Your task to perform on an android device: Search for Italian restaurants on Maps Image 0: 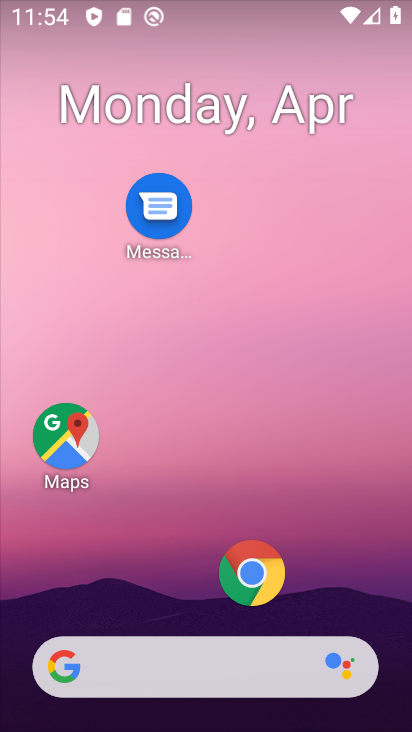
Step 0: click (82, 432)
Your task to perform on an android device: Search for Italian restaurants on Maps Image 1: 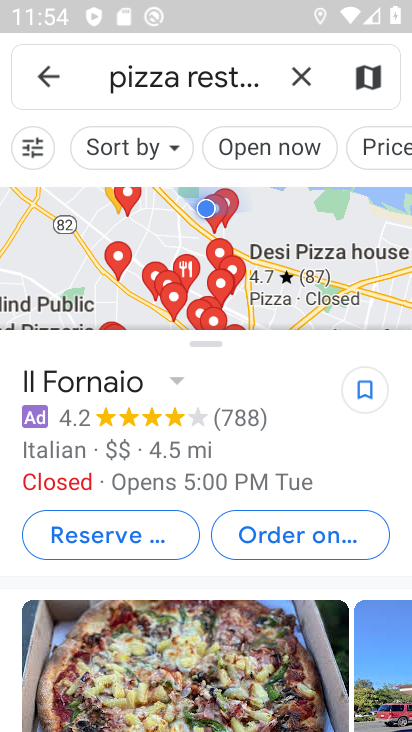
Step 1: click (292, 76)
Your task to perform on an android device: Search for Italian restaurants on Maps Image 2: 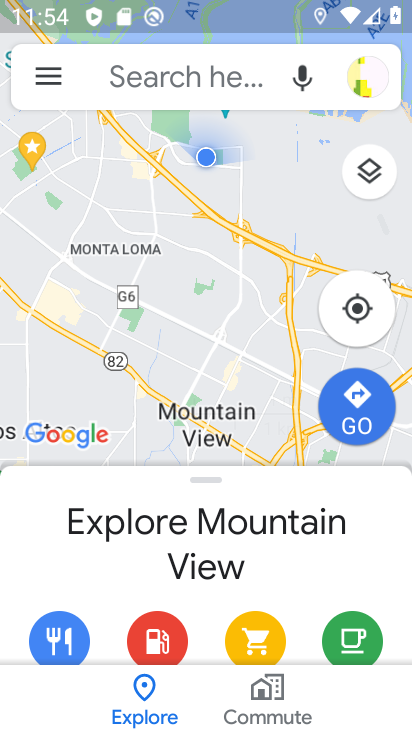
Step 2: click (188, 83)
Your task to perform on an android device: Search for Italian restaurants on Maps Image 3: 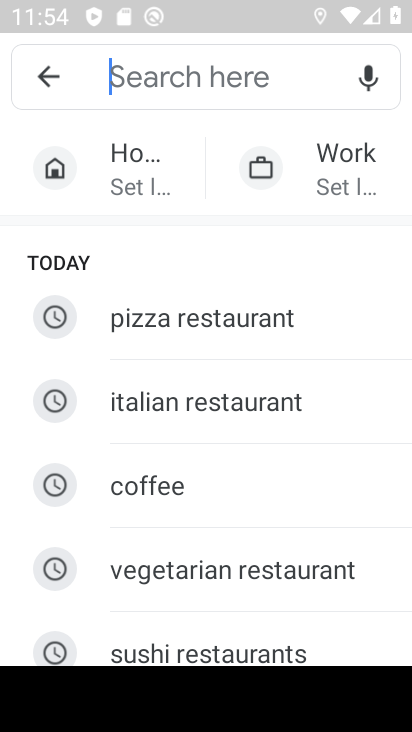
Step 3: click (199, 418)
Your task to perform on an android device: Search for Italian restaurants on Maps Image 4: 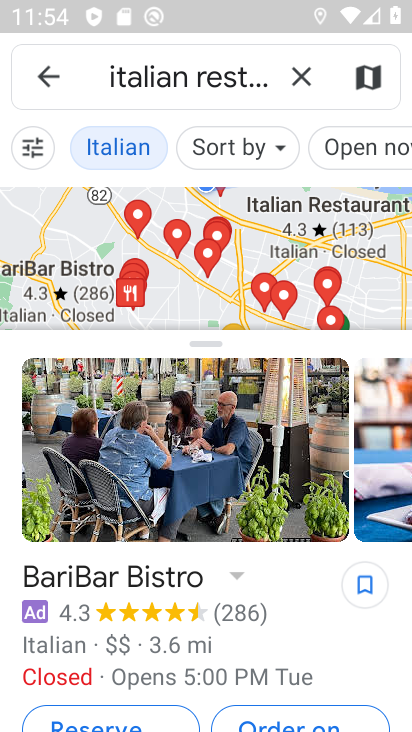
Step 4: task complete